Your task to perform on an android device: Open Google Chrome and open the bookmarks view Image 0: 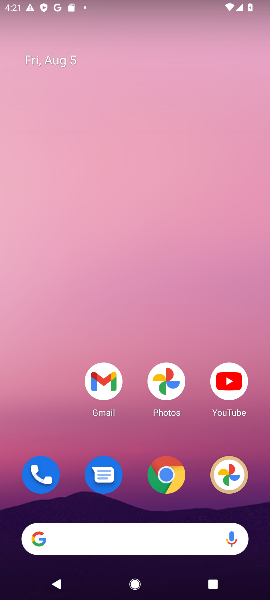
Step 0: click (186, 474)
Your task to perform on an android device: Open Google Chrome and open the bookmarks view Image 1: 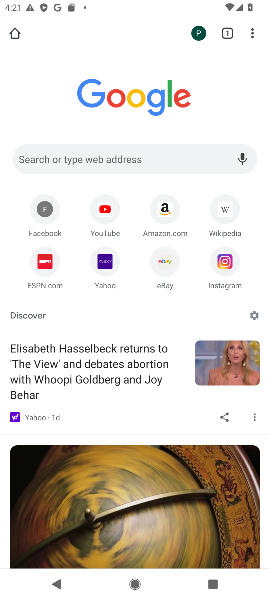
Step 1: click (256, 28)
Your task to perform on an android device: Open Google Chrome and open the bookmarks view Image 2: 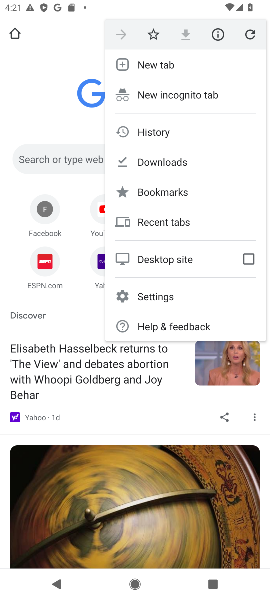
Step 2: click (161, 191)
Your task to perform on an android device: Open Google Chrome and open the bookmarks view Image 3: 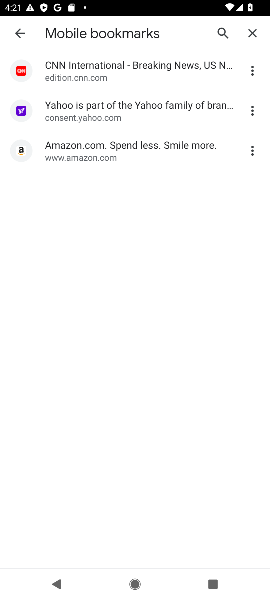
Step 3: task complete